Your task to perform on an android device: open device folders in google photos Image 0: 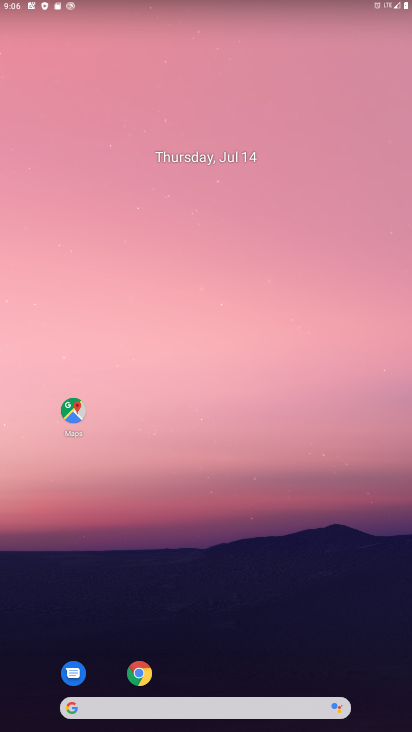
Step 0: drag from (223, 703) to (210, 245)
Your task to perform on an android device: open device folders in google photos Image 1: 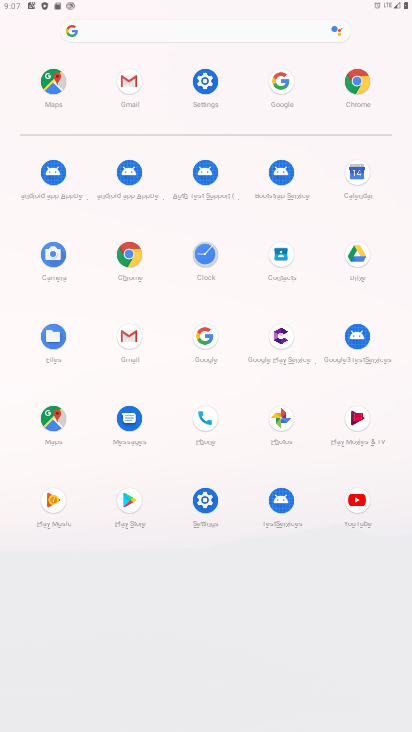
Step 1: click (282, 420)
Your task to perform on an android device: open device folders in google photos Image 2: 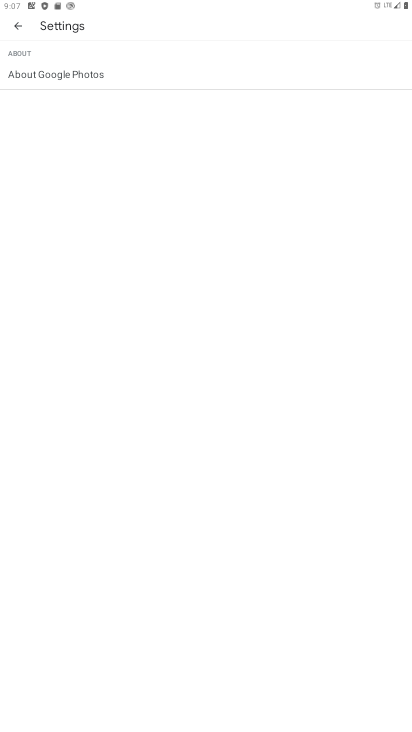
Step 2: press back button
Your task to perform on an android device: open device folders in google photos Image 3: 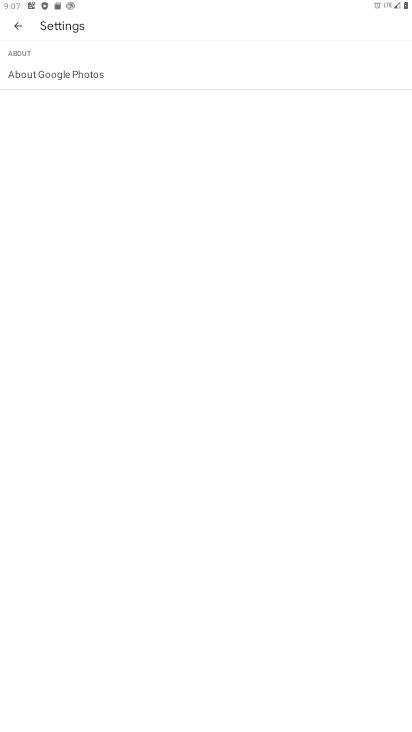
Step 3: press back button
Your task to perform on an android device: open device folders in google photos Image 4: 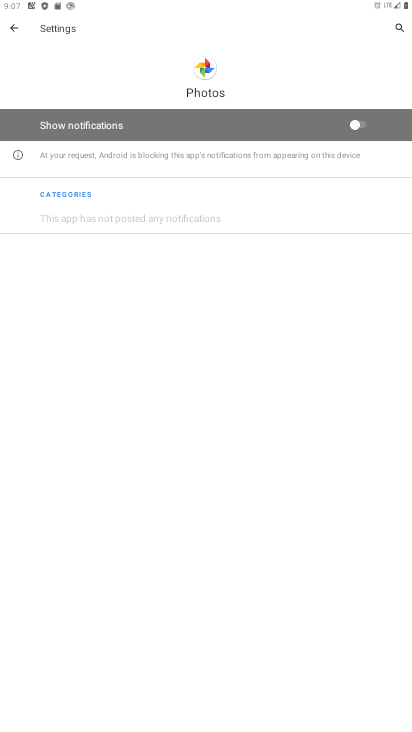
Step 4: press back button
Your task to perform on an android device: open device folders in google photos Image 5: 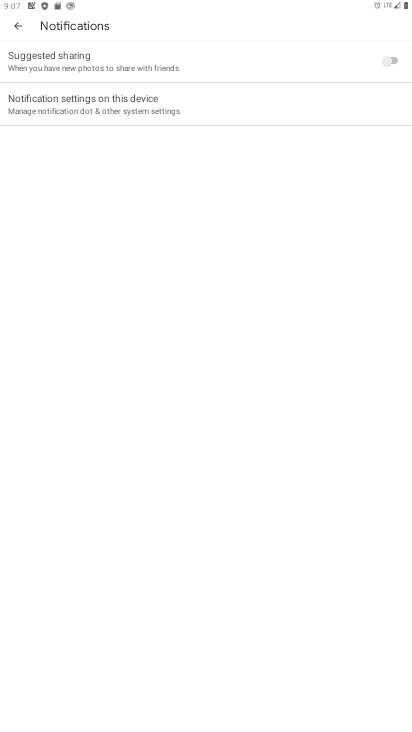
Step 5: press back button
Your task to perform on an android device: open device folders in google photos Image 6: 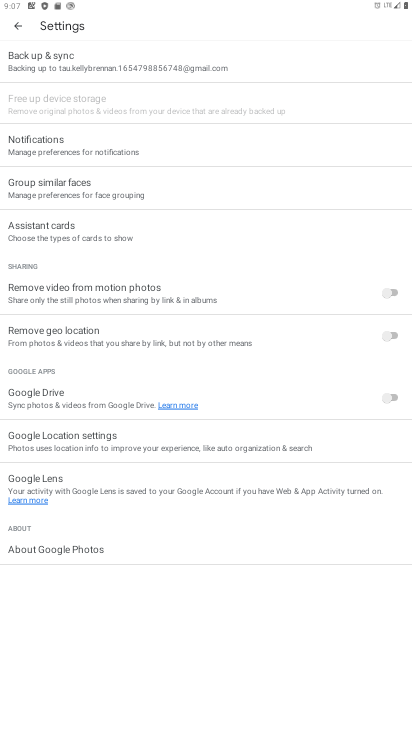
Step 6: press back button
Your task to perform on an android device: open device folders in google photos Image 7: 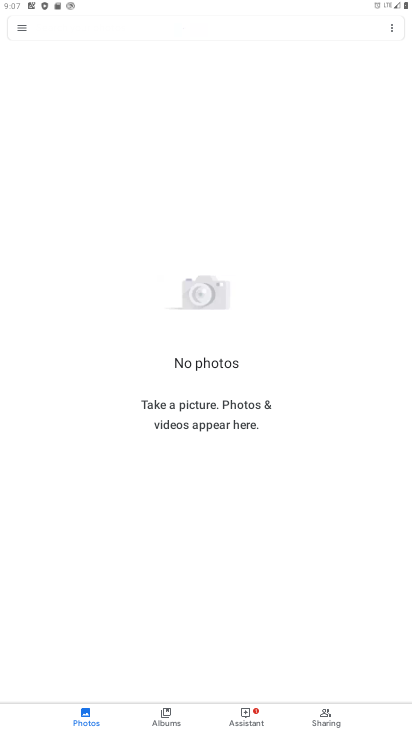
Step 7: click (23, 26)
Your task to perform on an android device: open device folders in google photos Image 8: 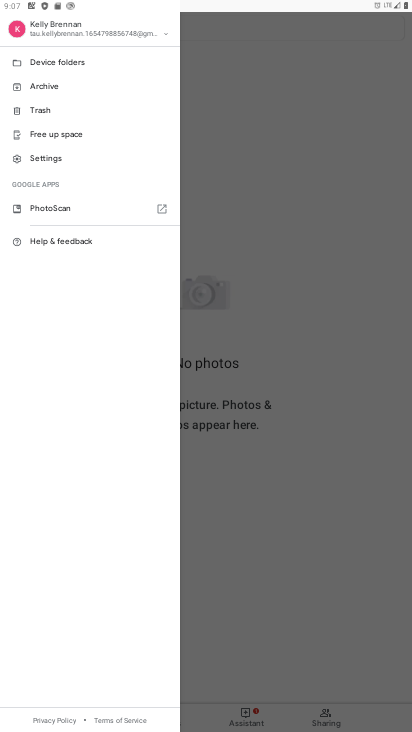
Step 8: click (46, 64)
Your task to perform on an android device: open device folders in google photos Image 9: 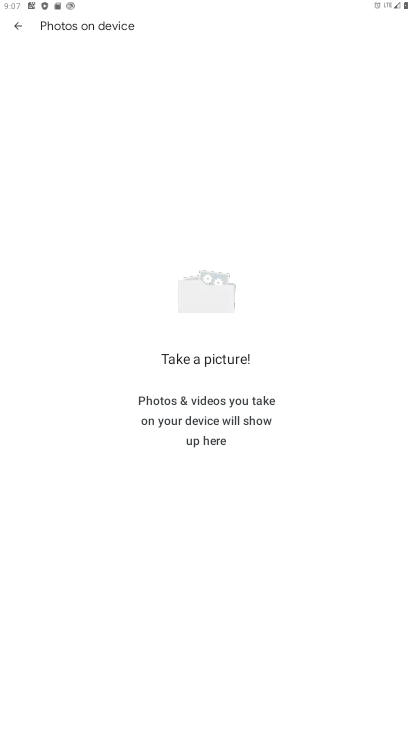
Step 9: task complete